Your task to perform on an android device: Go to Google Image 0: 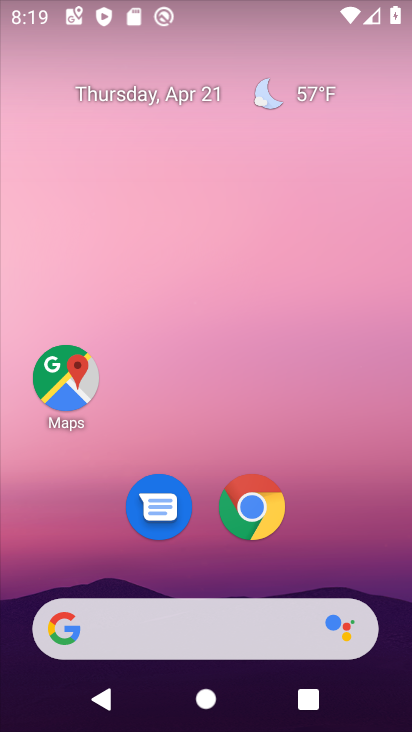
Step 0: drag from (338, 529) to (295, 25)
Your task to perform on an android device: Go to Google Image 1: 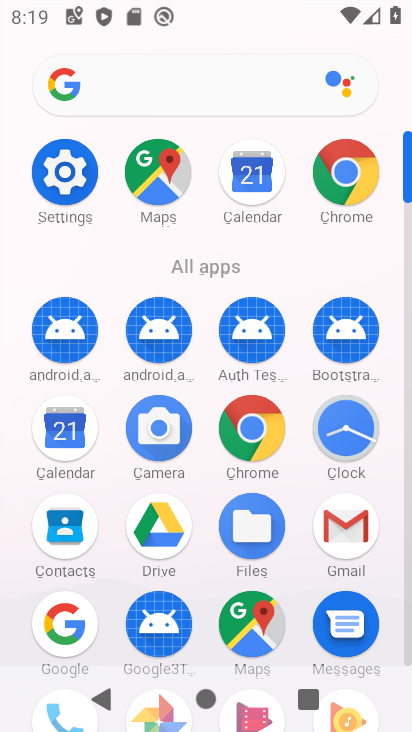
Step 1: click (64, 627)
Your task to perform on an android device: Go to Google Image 2: 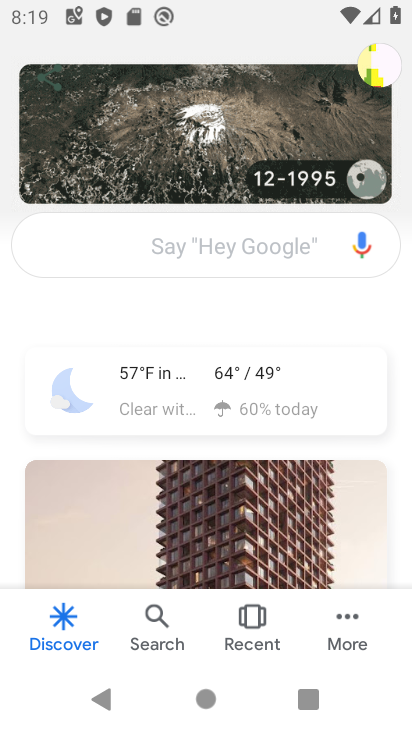
Step 2: task complete